Your task to perform on an android device: turn off data saver in the chrome app Image 0: 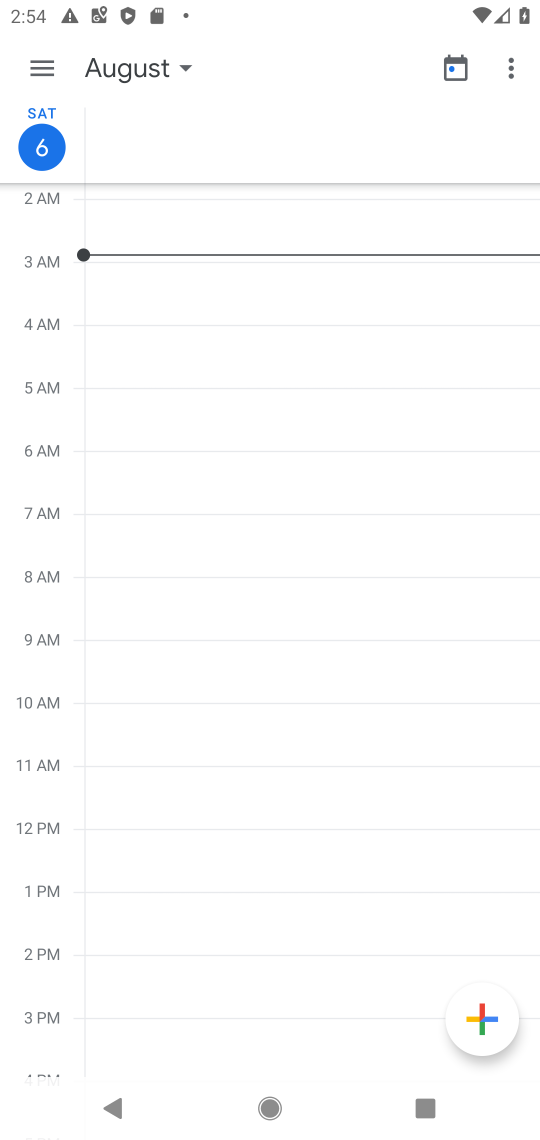
Step 0: press home button
Your task to perform on an android device: turn off data saver in the chrome app Image 1: 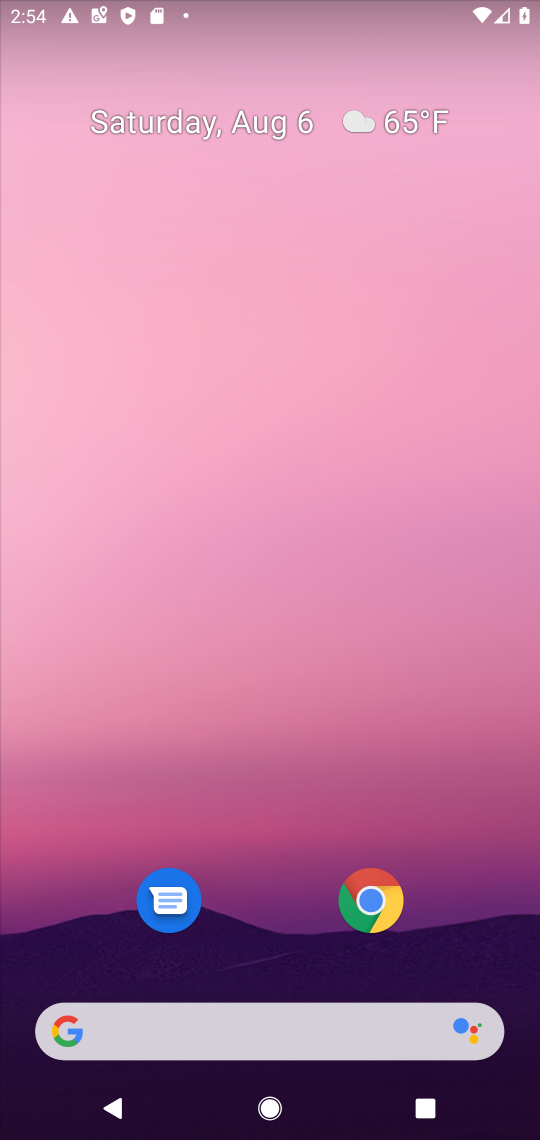
Step 1: drag from (267, 936) to (326, 165)
Your task to perform on an android device: turn off data saver in the chrome app Image 2: 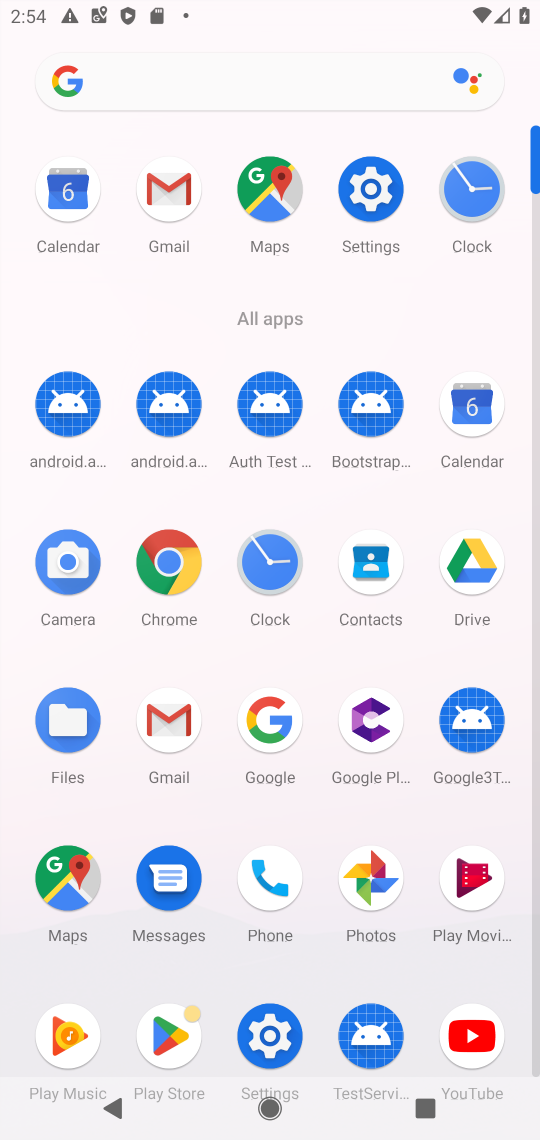
Step 2: click (164, 559)
Your task to perform on an android device: turn off data saver in the chrome app Image 3: 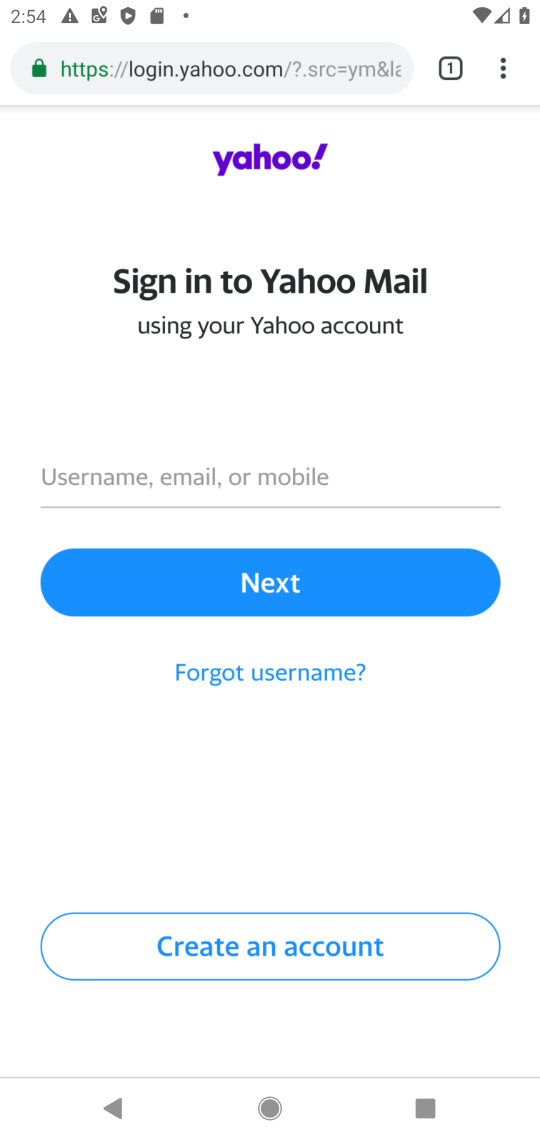
Step 3: click (497, 58)
Your task to perform on an android device: turn off data saver in the chrome app Image 4: 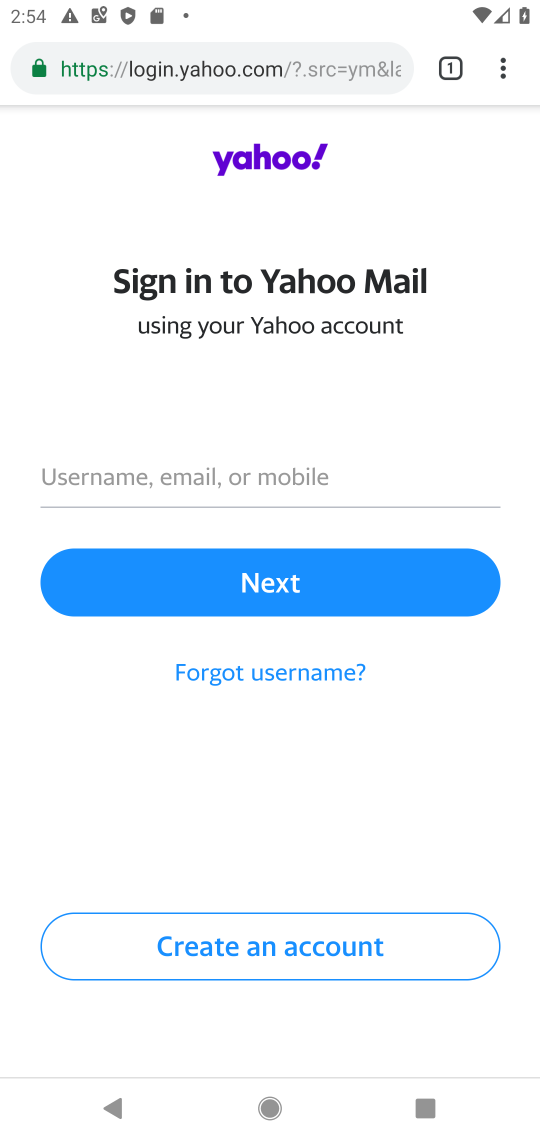
Step 4: click (502, 49)
Your task to perform on an android device: turn off data saver in the chrome app Image 5: 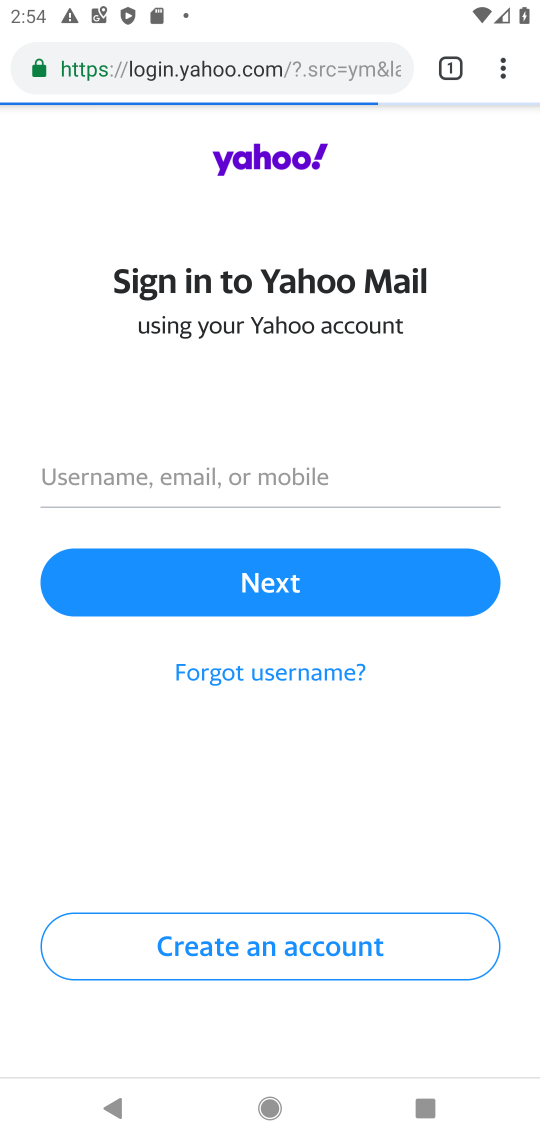
Step 5: drag from (507, 64) to (282, 765)
Your task to perform on an android device: turn off data saver in the chrome app Image 6: 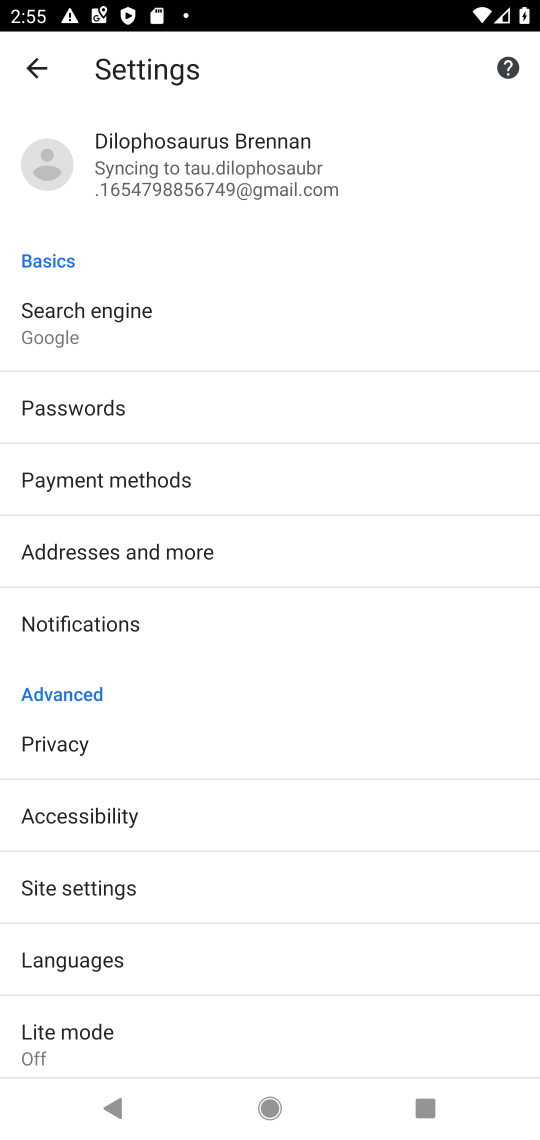
Step 6: click (97, 1035)
Your task to perform on an android device: turn off data saver in the chrome app Image 7: 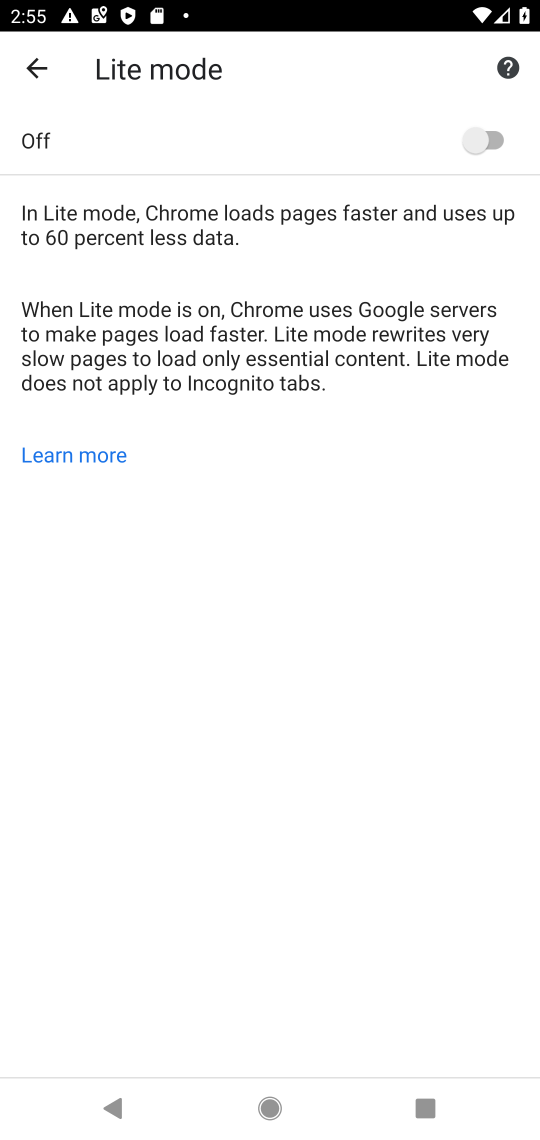
Step 7: task complete